Your task to perform on an android device: set the stopwatch Image 0: 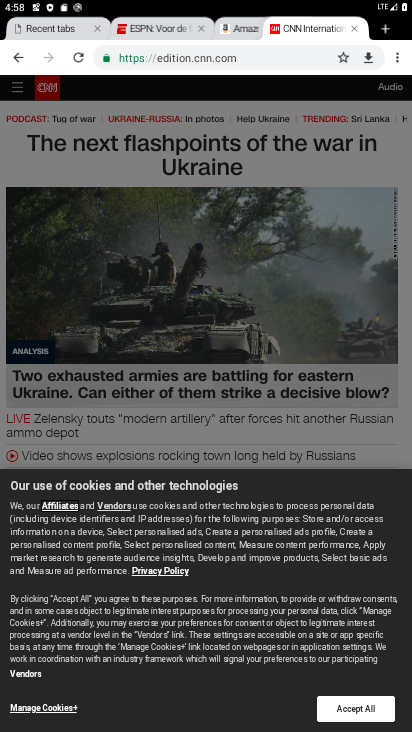
Step 0: press home button
Your task to perform on an android device: set the stopwatch Image 1: 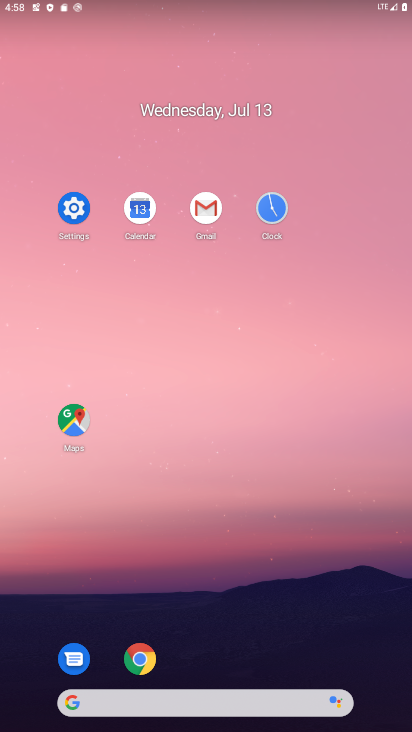
Step 1: click (286, 208)
Your task to perform on an android device: set the stopwatch Image 2: 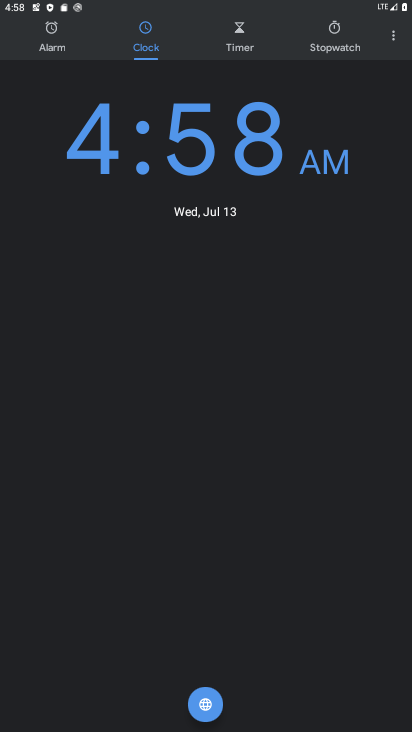
Step 2: click (329, 46)
Your task to perform on an android device: set the stopwatch Image 3: 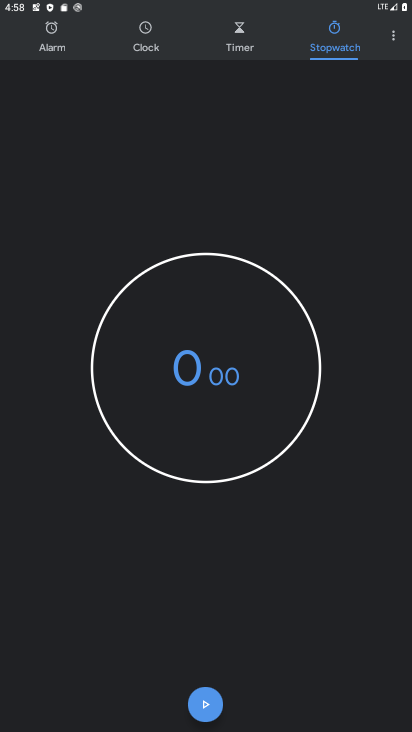
Step 3: click (208, 708)
Your task to perform on an android device: set the stopwatch Image 4: 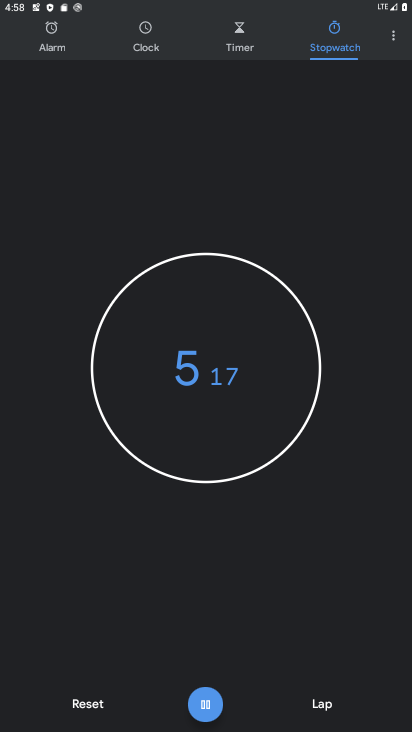
Step 4: task complete